Your task to perform on an android device: open wifi settings Image 0: 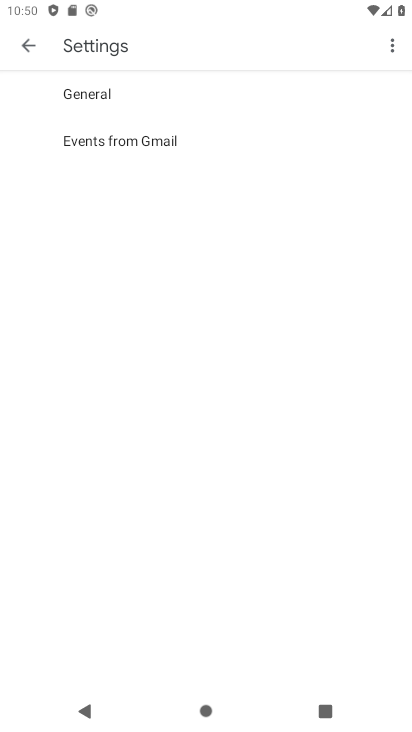
Step 0: press home button
Your task to perform on an android device: open wifi settings Image 1: 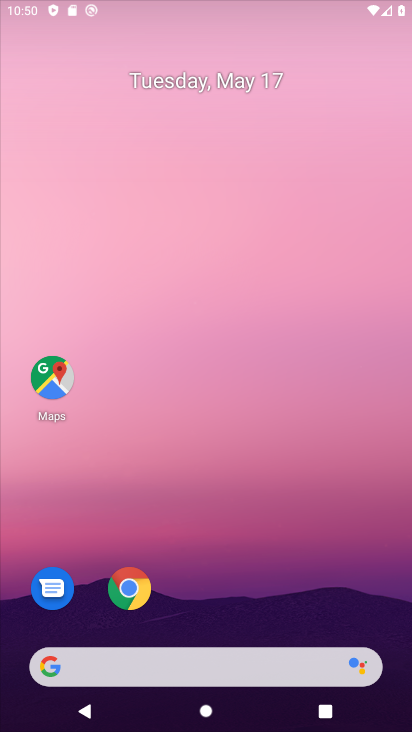
Step 1: drag from (270, 545) to (285, 6)
Your task to perform on an android device: open wifi settings Image 2: 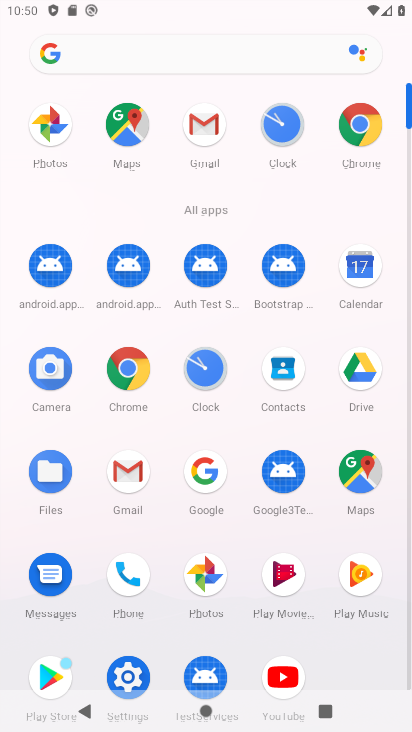
Step 2: click (123, 667)
Your task to perform on an android device: open wifi settings Image 3: 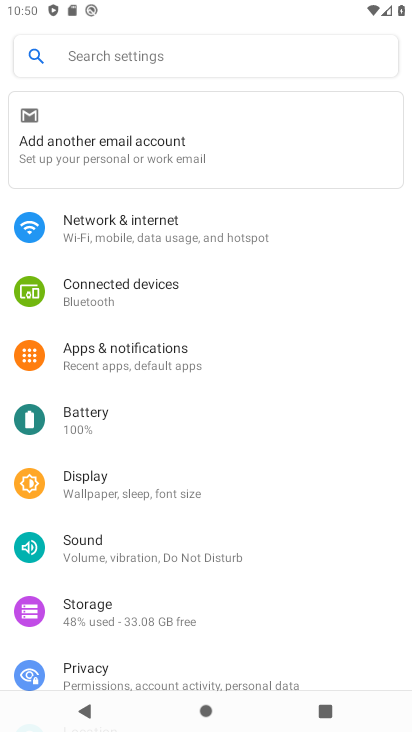
Step 3: click (152, 207)
Your task to perform on an android device: open wifi settings Image 4: 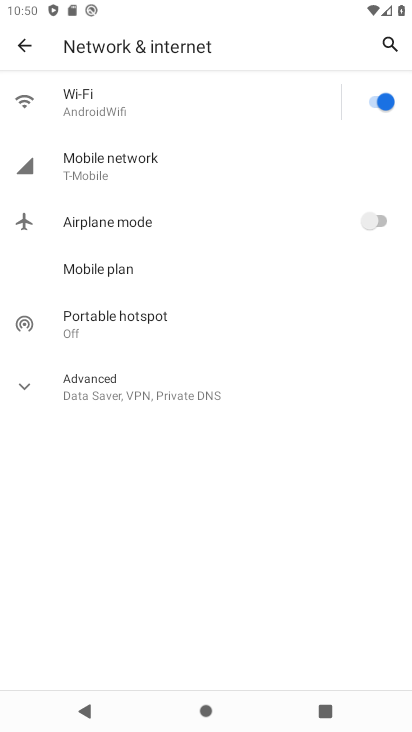
Step 4: click (131, 107)
Your task to perform on an android device: open wifi settings Image 5: 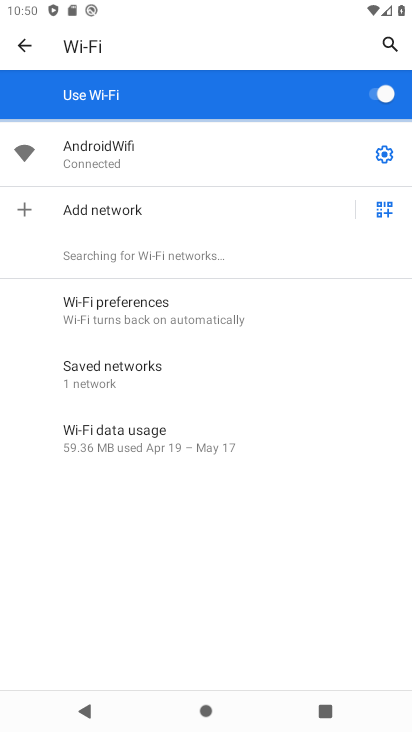
Step 5: task complete